Your task to perform on an android device: visit the assistant section in the google photos Image 0: 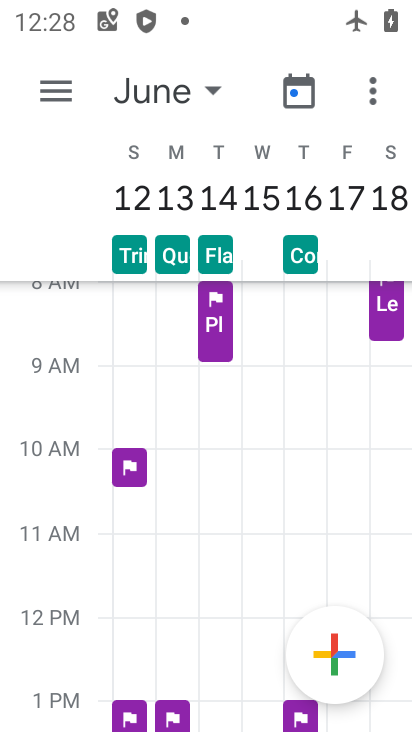
Step 0: press home button
Your task to perform on an android device: visit the assistant section in the google photos Image 1: 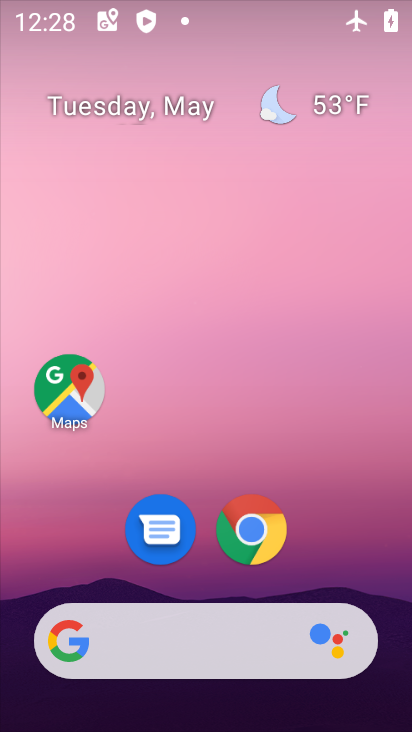
Step 1: drag from (239, 720) to (238, 239)
Your task to perform on an android device: visit the assistant section in the google photos Image 2: 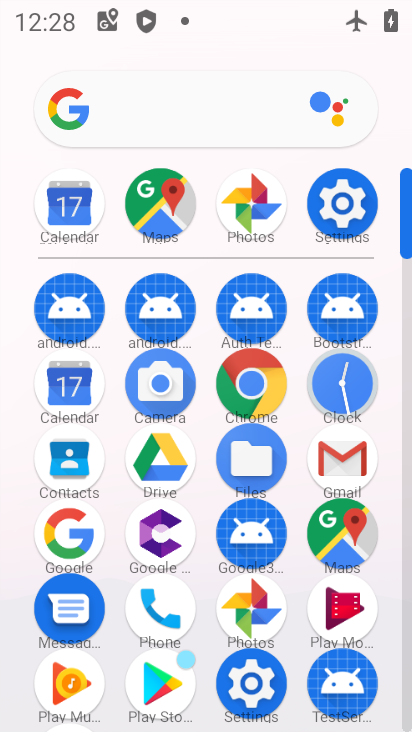
Step 2: click (257, 607)
Your task to perform on an android device: visit the assistant section in the google photos Image 3: 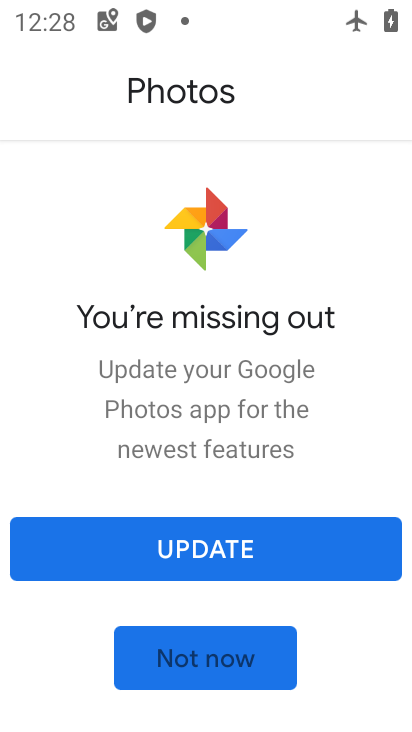
Step 3: click (209, 544)
Your task to perform on an android device: visit the assistant section in the google photos Image 4: 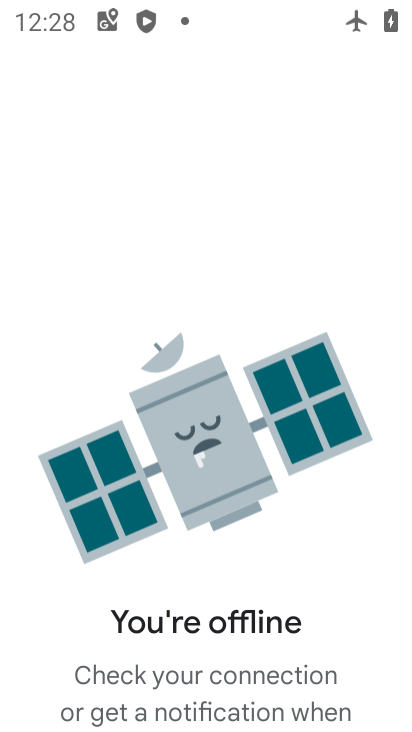
Step 4: task complete